Your task to perform on an android device: Open the phone app and click the voicemail tab. Image 0: 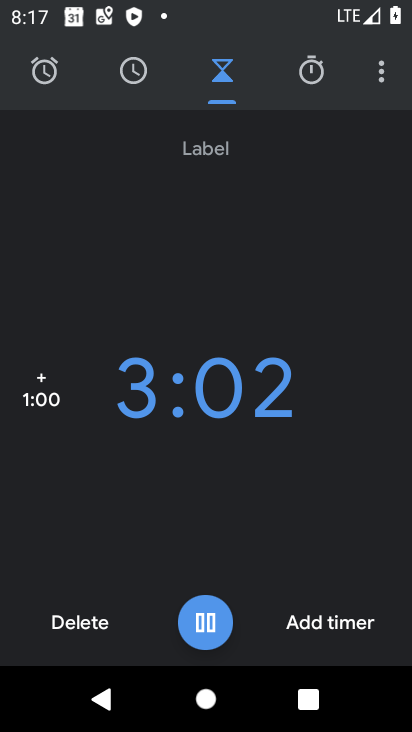
Step 0: press home button
Your task to perform on an android device: Open the phone app and click the voicemail tab. Image 1: 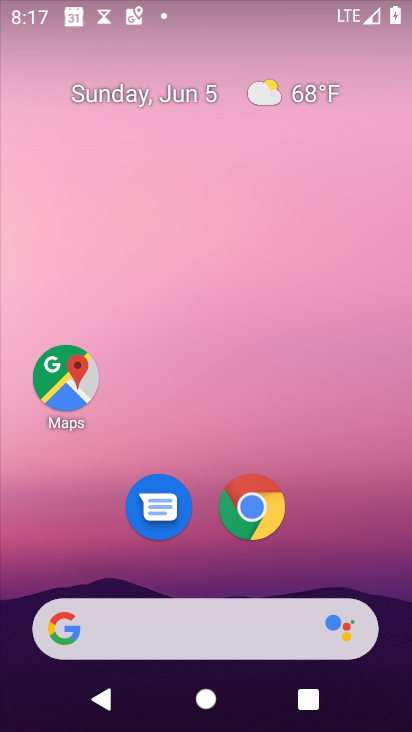
Step 1: drag from (193, 585) to (316, 1)
Your task to perform on an android device: Open the phone app and click the voicemail tab. Image 2: 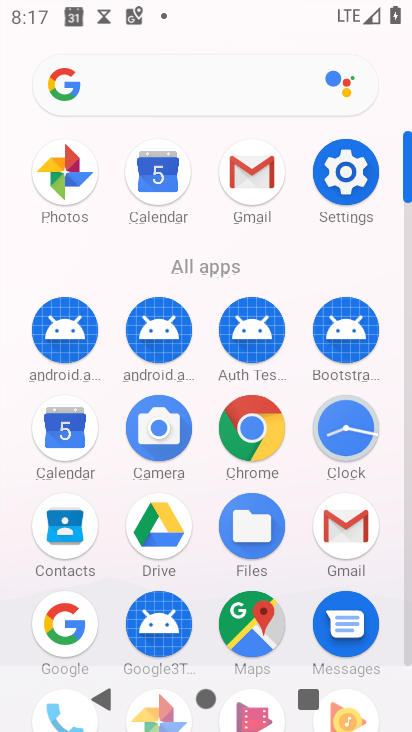
Step 2: drag from (179, 674) to (195, 315)
Your task to perform on an android device: Open the phone app and click the voicemail tab. Image 3: 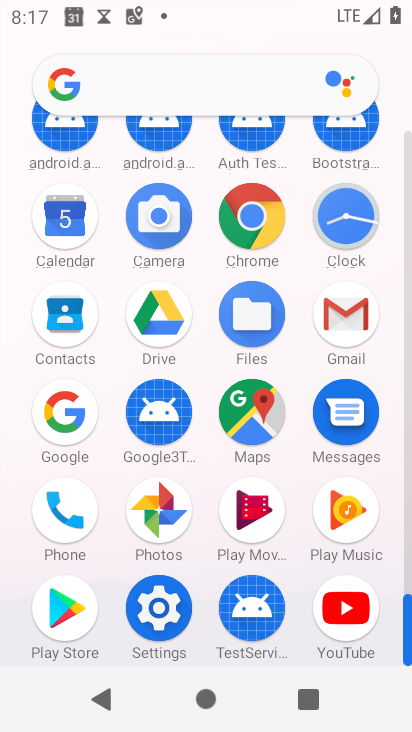
Step 3: click (66, 519)
Your task to perform on an android device: Open the phone app and click the voicemail tab. Image 4: 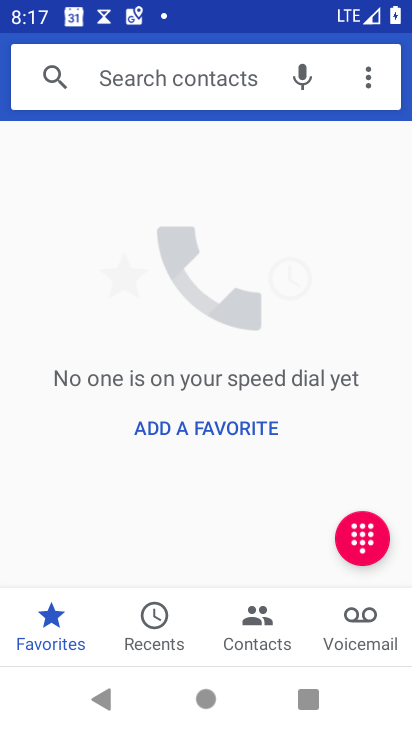
Step 4: click (368, 626)
Your task to perform on an android device: Open the phone app and click the voicemail tab. Image 5: 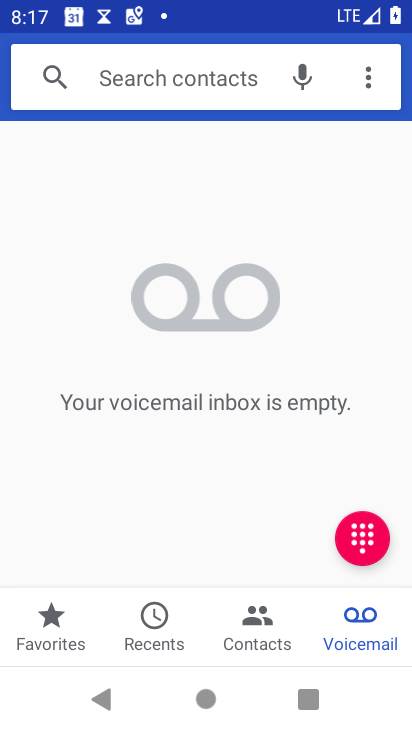
Step 5: task complete